Your task to perform on an android device: stop showing notifications on the lock screen Image 0: 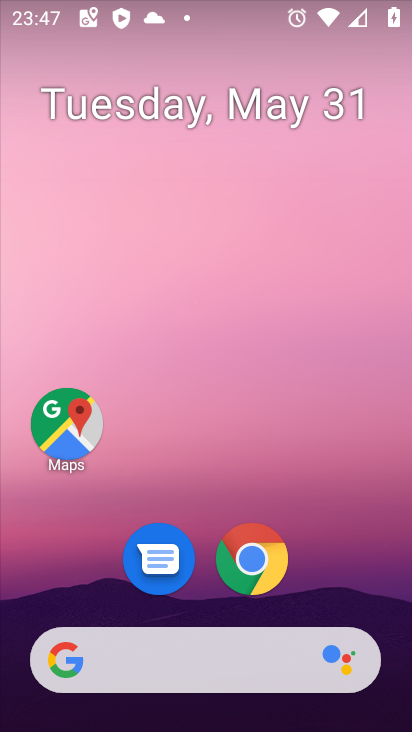
Step 0: drag from (315, 562) to (337, 108)
Your task to perform on an android device: stop showing notifications on the lock screen Image 1: 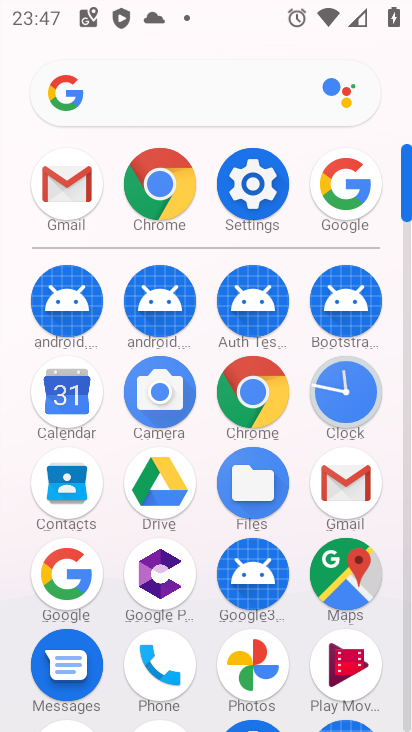
Step 1: click (256, 189)
Your task to perform on an android device: stop showing notifications on the lock screen Image 2: 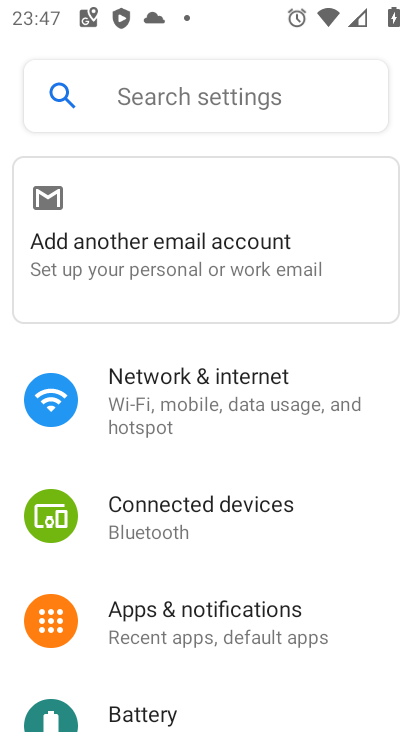
Step 2: click (183, 607)
Your task to perform on an android device: stop showing notifications on the lock screen Image 3: 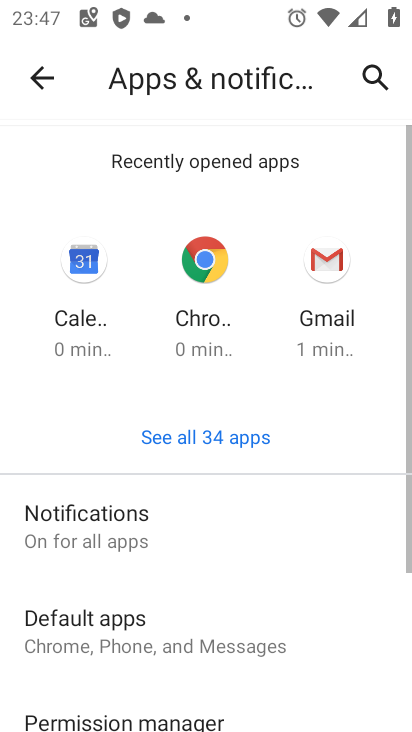
Step 3: click (87, 515)
Your task to perform on an android device: stop showing notifications on the lock screen Image 4: 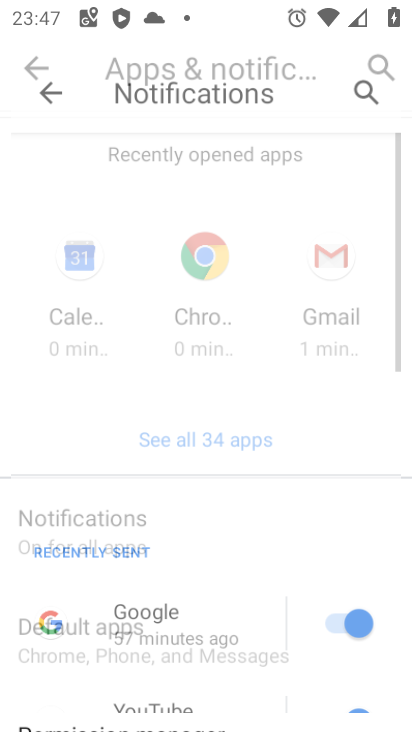
Step 4: drag from (267, 528) to (255, 75)
Your task to perform on an android device: stop showing notifications on the lock screen Image 5: 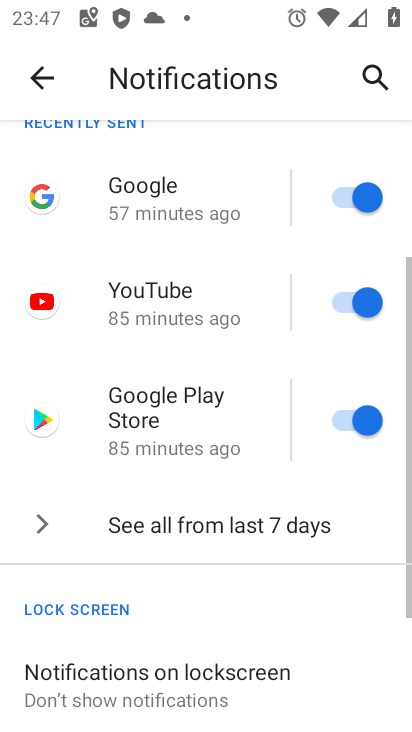
Step 5: drag from (210, 662) to (207, 141)
Your task to perform on an android device: stop showing notifications on the lock screen Image 6: 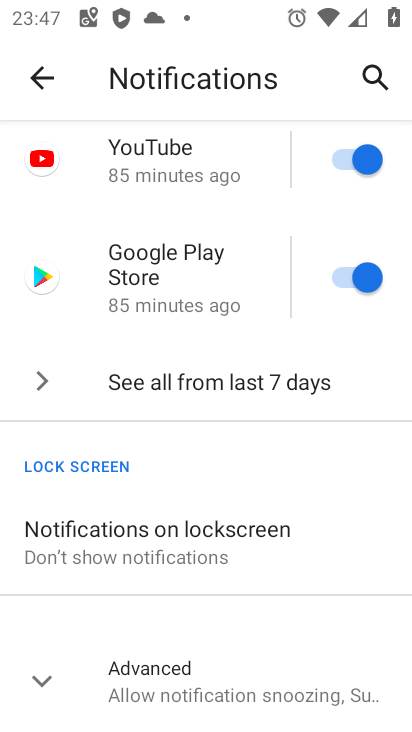
Step 6: click (152, 686)
Your task to perform on an android device: stop showing notifications on the lock screen Image 7: 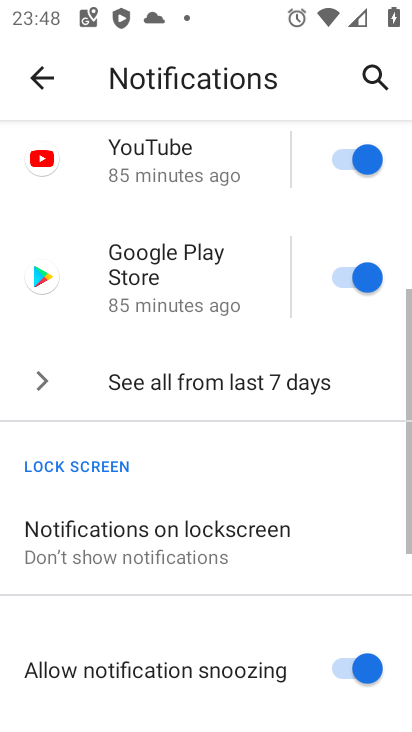
Step 7: click (147, 562)
Your task to perform on an android device: stop showing notifications on the lock screen Image 8: 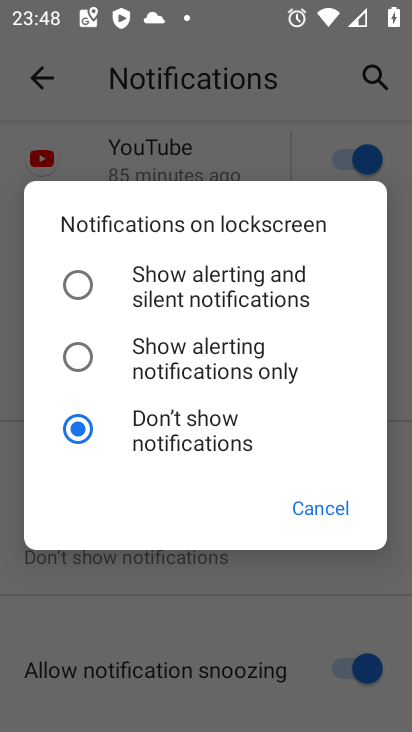
Step 8: task complete